Your task to perform on an android device: turn off location history Image 0: 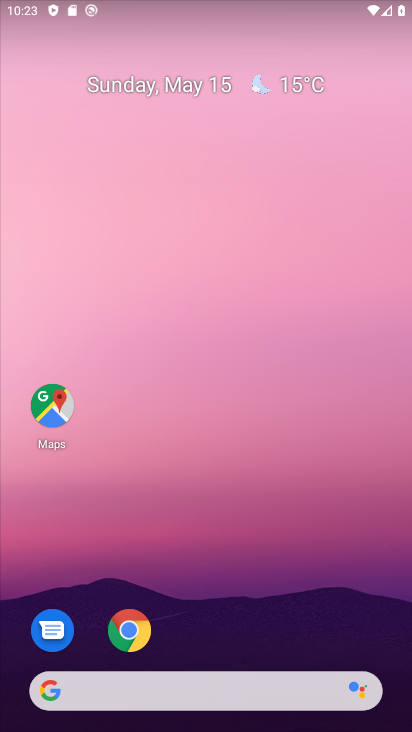
Step 0: drag from (213, 670) to (216, 203)
Your task to perform on an android device: turn off location history Image 1: 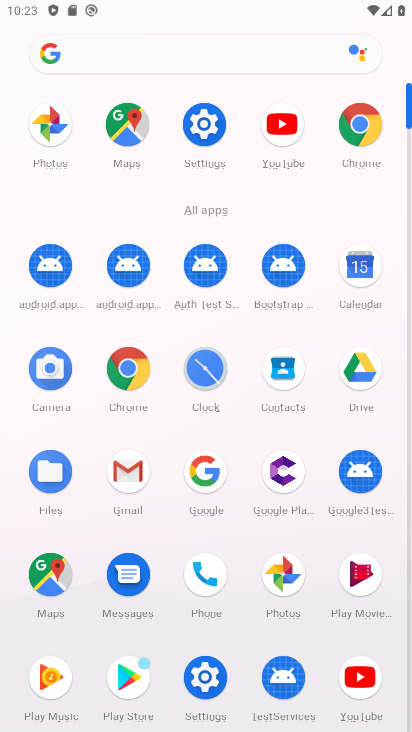
Step 1: click (206, 126)
Your task to perform on an android device: turn off location history Image 2: 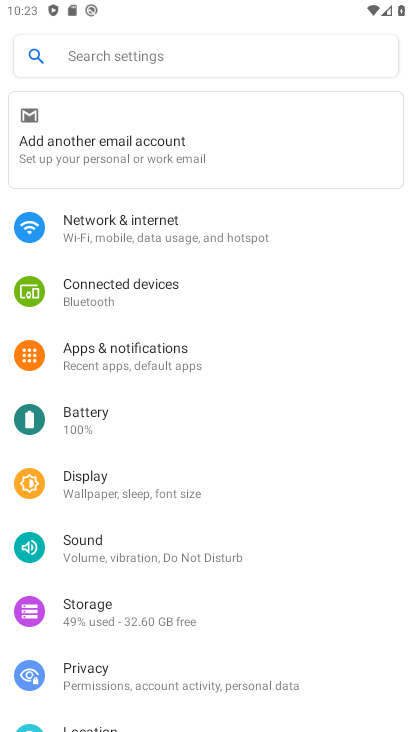
Step 2: drag from (118, 661) to (125, 319)
Your task to perform on an android device: turn off location history Image 3: 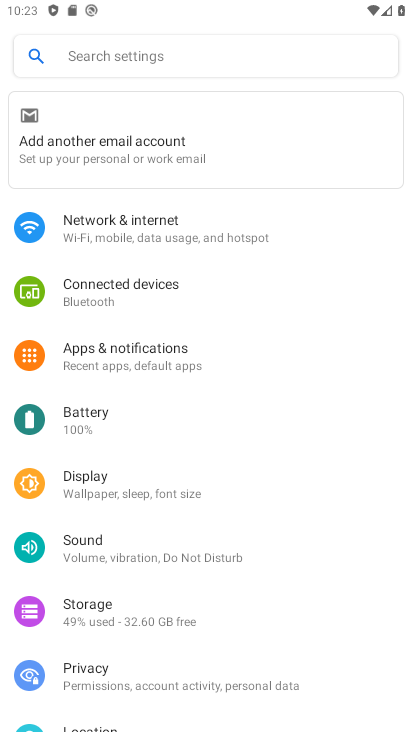
Step 3: drag from (222, 692) to (224, 401)
Your task to perform on an android device: turn off location history Image 4: 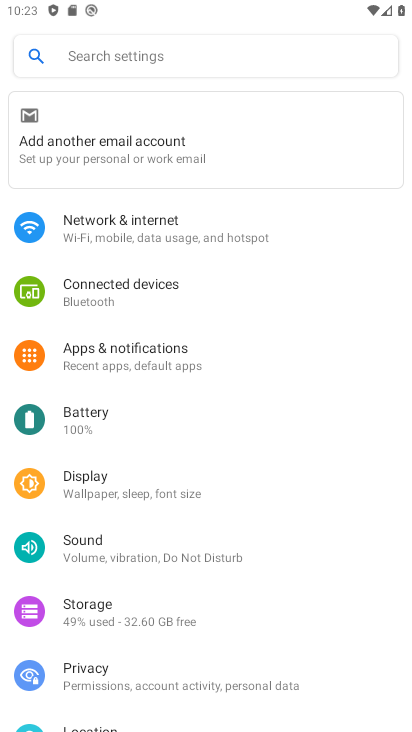
Step 4: drag from (169, 665) to (178, 355)
Your task to perform on an android device: turn off location history Image 5: 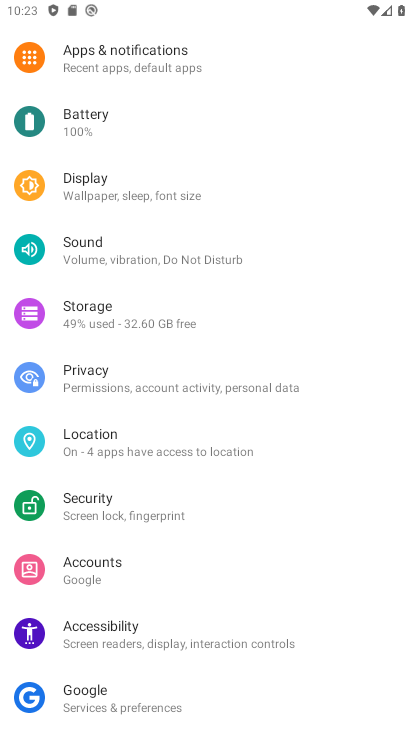
Step 5: click (89, 433)
Your task to perform on an android device: turn off location history Image 6: 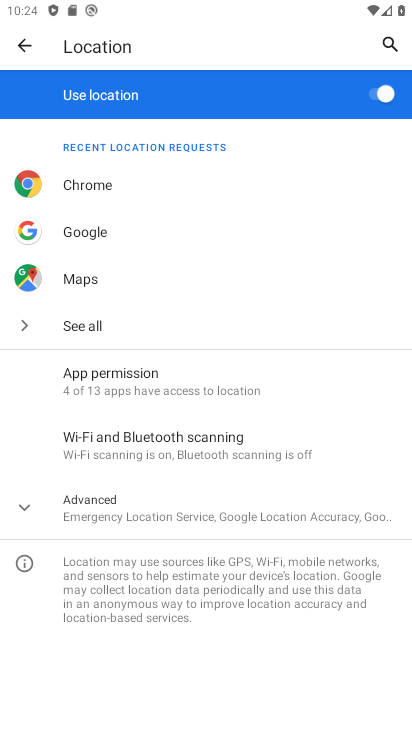
Step 6: click (90, 511)
Your task to perform on an android device: turn off location history Image 7: 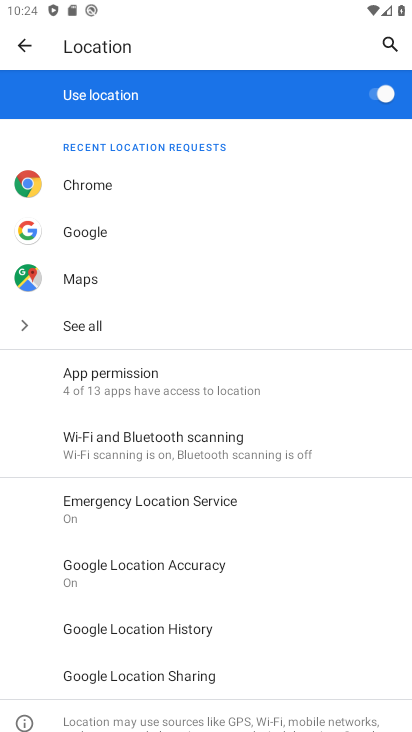
Step 7: click (144, 630)
Your task to perform on an android device: turn off location history Image 8: 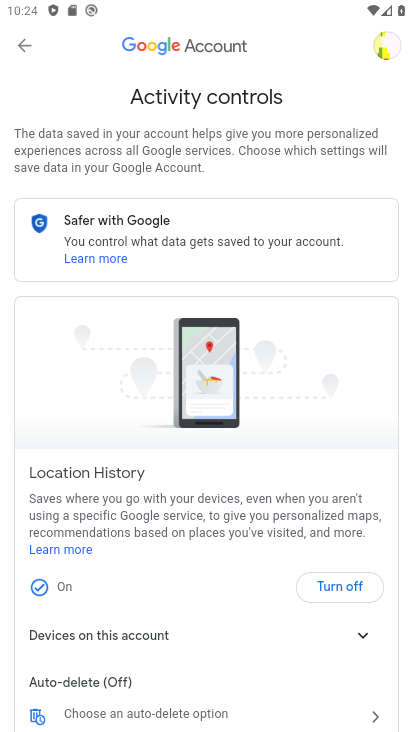
Step 8: click (332, 589)
Your task to perform on an android device: turn off location history Image 9: 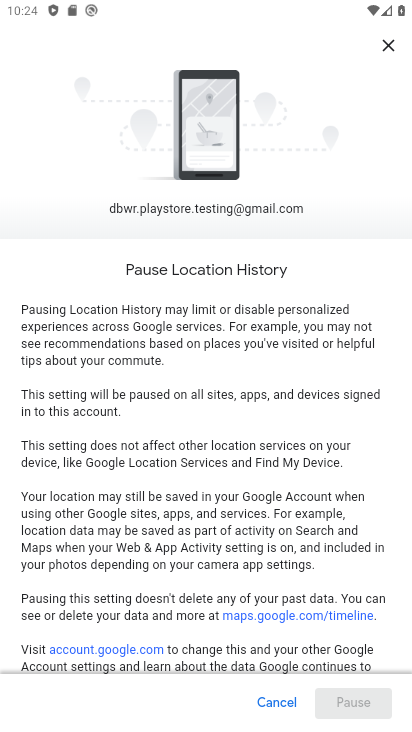
Step 9: drag from (169, 648) to (183, 228)
Your task to perform on an android device: turn off location history Image 10: 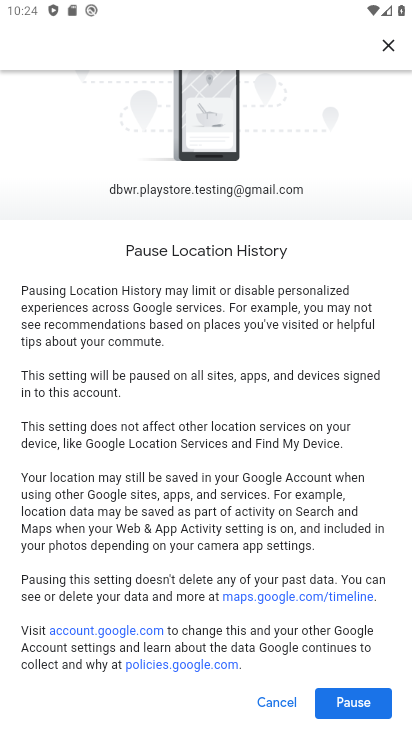
Step 10: click (355, 706)
Your task to perform on an android device: turn off location history Image 11: 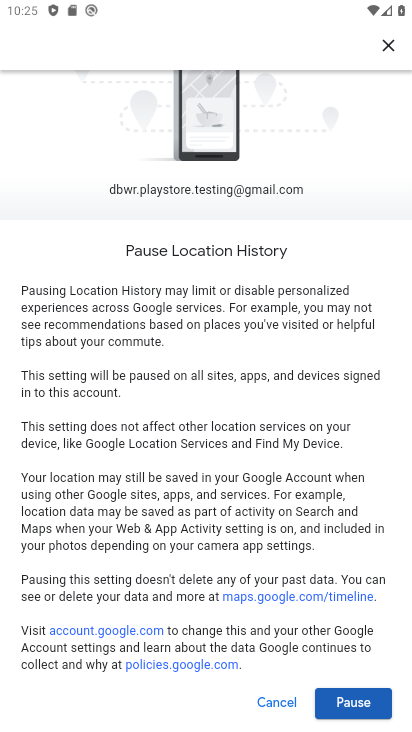
Step 11: click (360, 697)
Your task to perform on an android device: turn off location history Image 12: 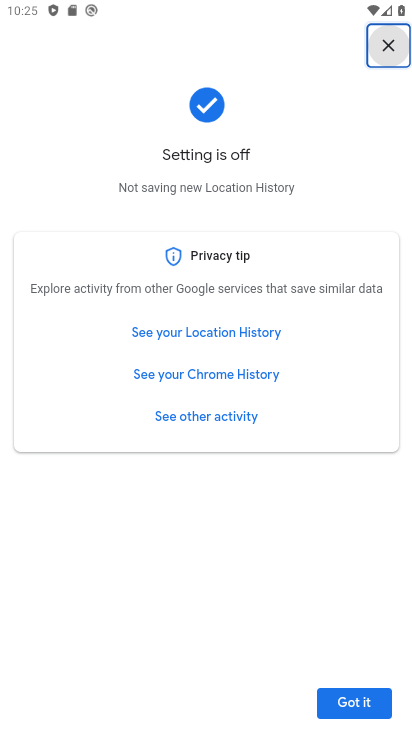
Step 12: task complete